Your task to perform on an android device: Go to calendar. Show me events next week Image 0: 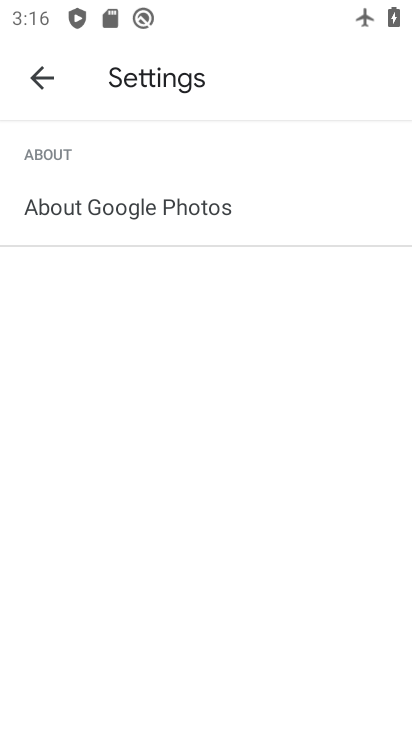
Step 0: press back button
Your task to perform on an android device: Go to calendar. Show me events next week Image 1: 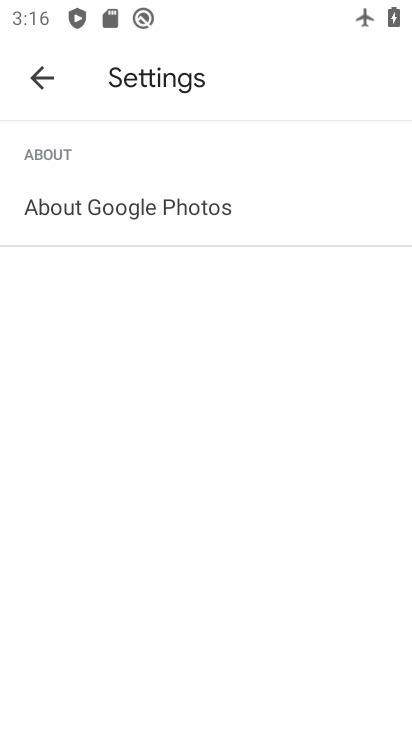
Step 1: press back button
Your task to perform on an android device: Go to calendar. Show me events next week Image 2: 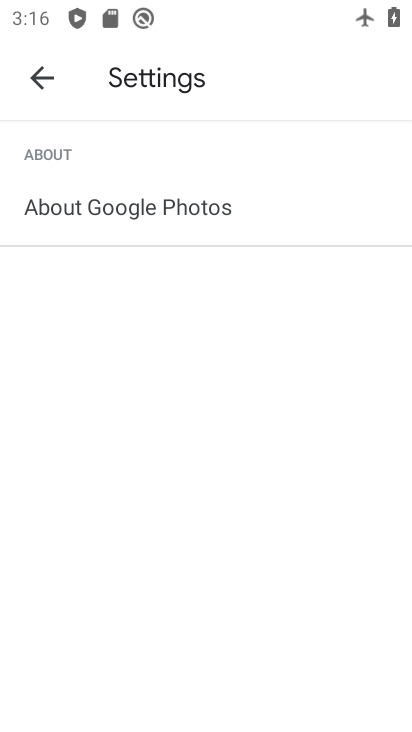
Step 2: press back button
Your task to perform on an android device: Go to calendar. Show me events next week Image 3: 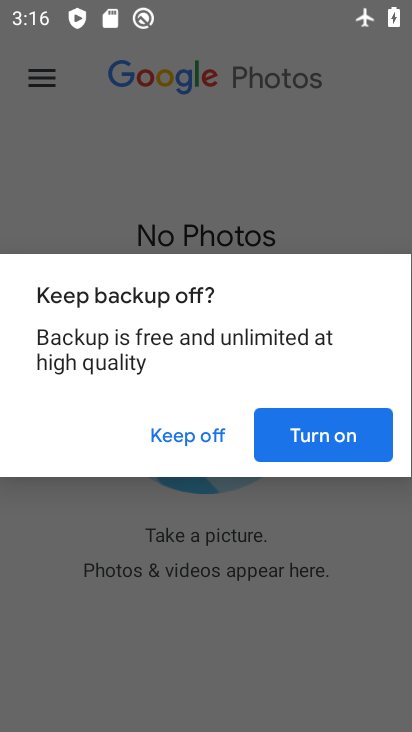
Step 3: press home button
Your task to perform on an android device: Go to calendar. Show me events next week Image 4: 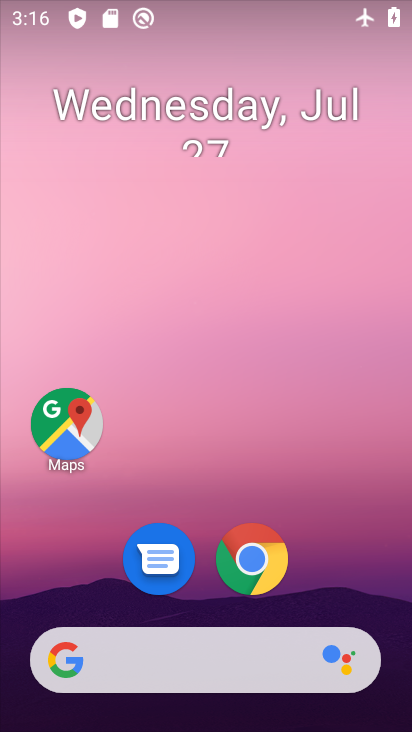
Step 4: drag from (59, 578) to (208, 22)
Your task to perform on an android device: Go to calendar. Show me events next week Image 5: 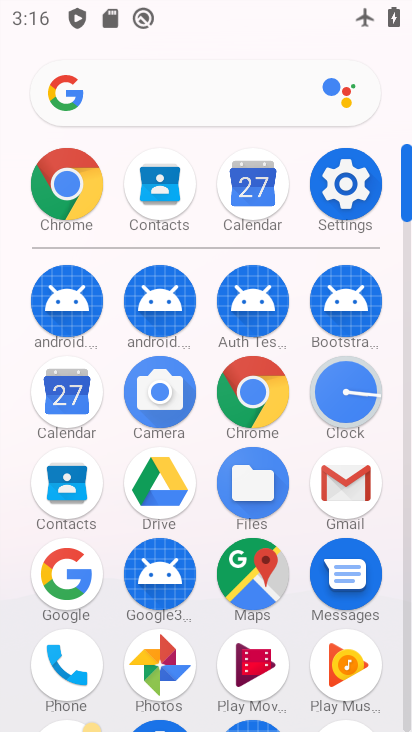
Step 5: click (68, 422)
Your task to perform on an android device: Go to calendar. Show me events next week Image 6: 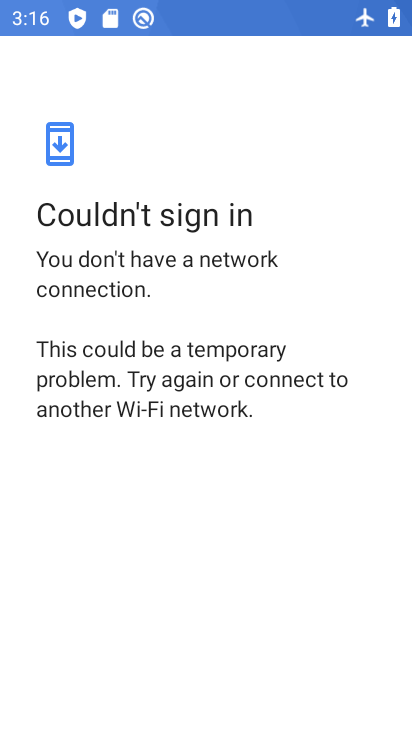
Step 6: press back button
Your task to perform on an android device: Go to calendar. Show me events next week Image 7: 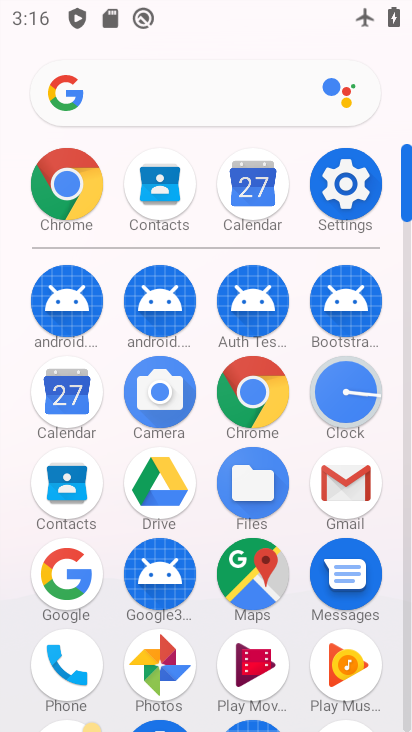
Step 7: press home button
Your task to perform on an android device: Go to calendar. Show me events next week Image 8: 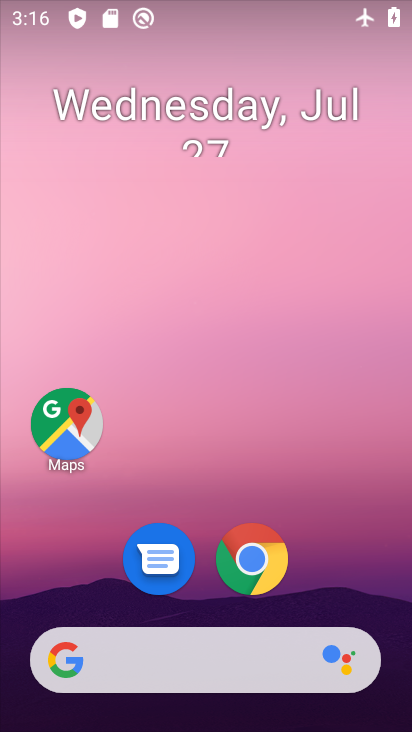
Step 8: drag from (71, 582) to (206, 1)
Your task to perform on an android device: Go to calendar. Show me events next week Image 9: 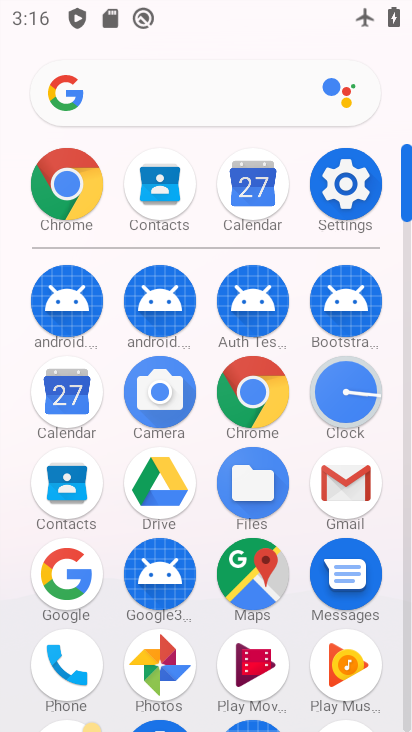
Step 9: click (74, 406)
Your task to perform on an android device: Go to calendar. Show me events next week Image 10: 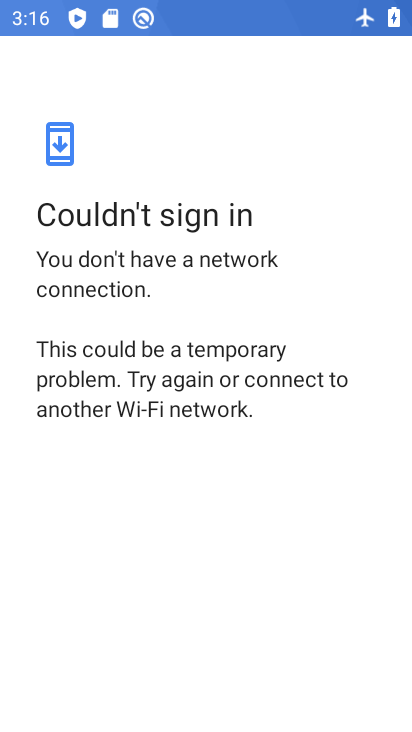
Step 10: press back button
Your task to perform on an android device: Go to calendar. Show me events next week Image 11: 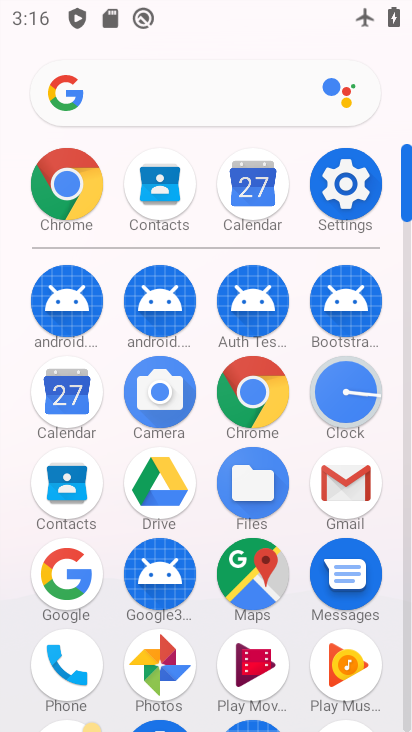
Step 11: click (244, 175)
Your task to perform on an android device: Go to calendar. Show me events next week Image 12: 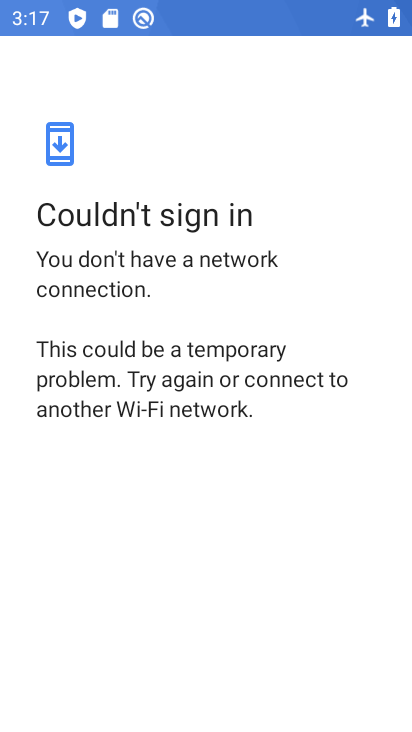
Step 12: task complete